Your task to perform on an android device: star an email in the gmail app Image 0: 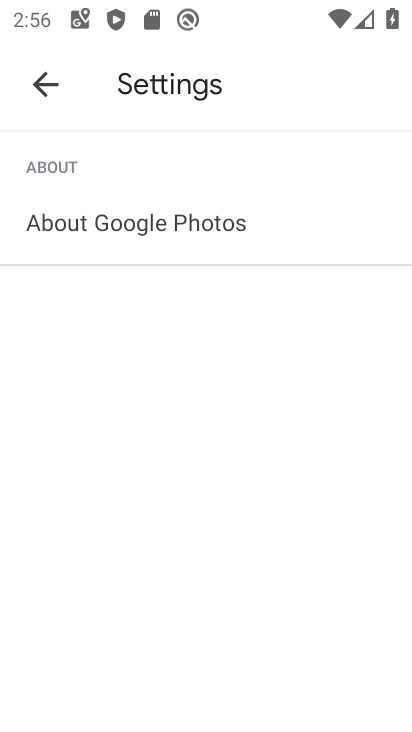
Step 0: press home button
Your task to perform on an android device: star an email in the gmail app Image 1: 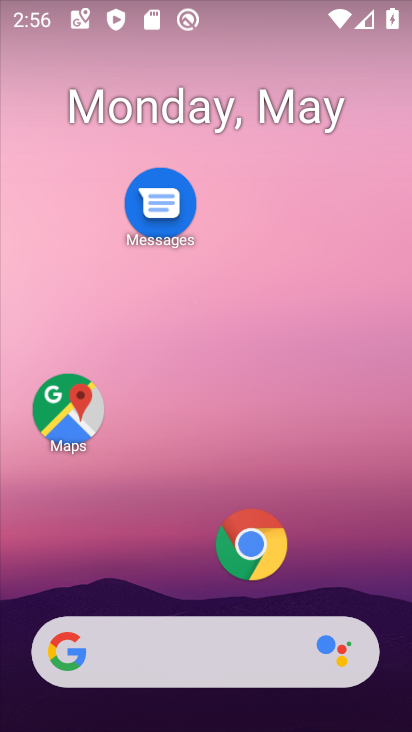
Step 1: drag from (160, 578) to (211, 232)
Your task to perform on an android device: star an email in the gmail app Image 2: 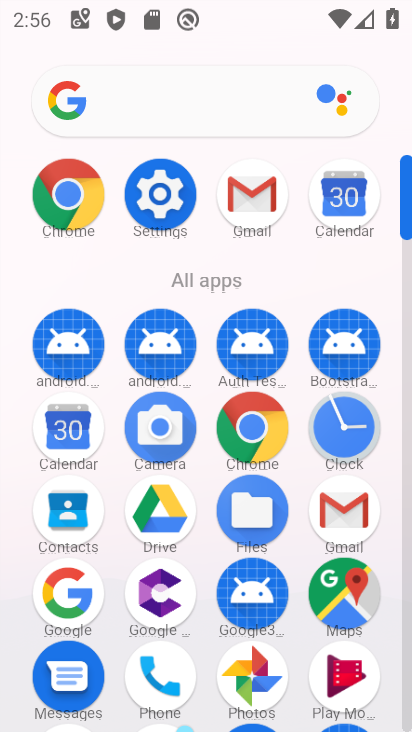
Step 2: click (263, 224)
Your task to perform on an android device: star an email in the gmail app Image 3: 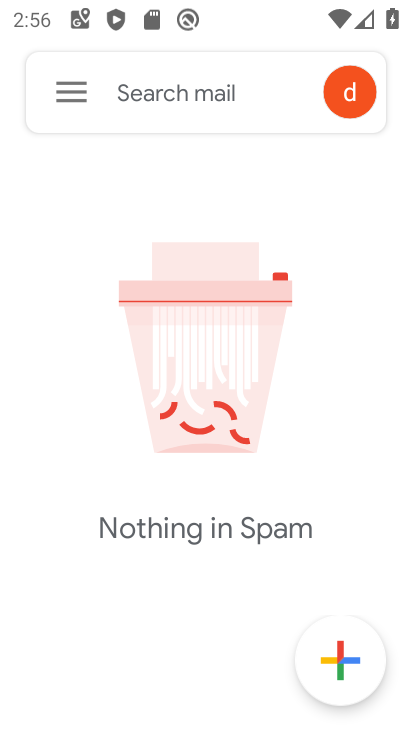
Step 3: click (81, 91)
Your task to perform on an android device: star an email in the gmail app Image 4: 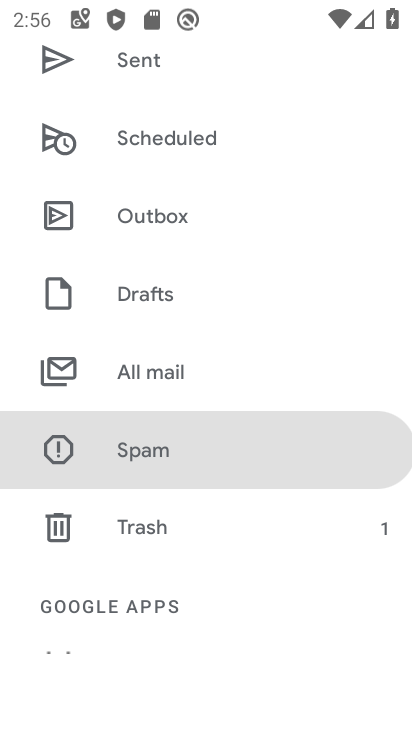
Step 4: click (260, 386)
Your task to perform on an android device: star an email in the gmail app Image 5: 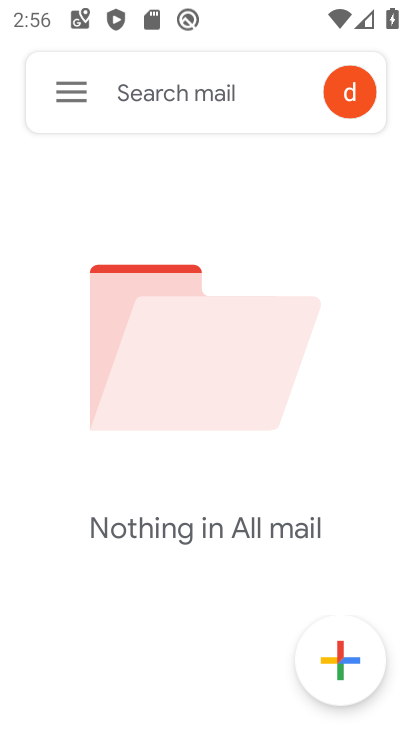
Step 5: task complete